Your task to perform on an android device: show emergency info Image 0: 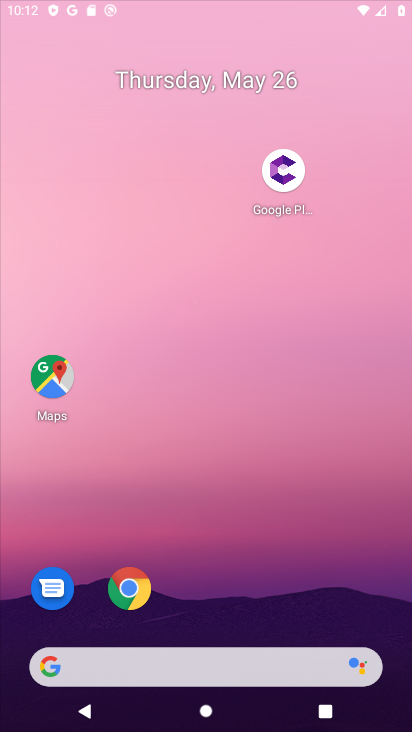
Step 0: drag from (263, 252) to (230, 28)
Your task to perform on an android device: show emergency info Image 1: 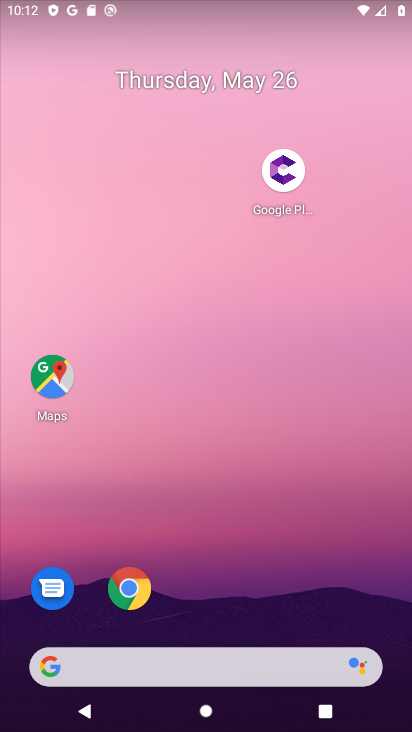
Step 1: drag from (245, 652) to (226, 6)
Your task to perform on an android device: show emergency info Image 2: 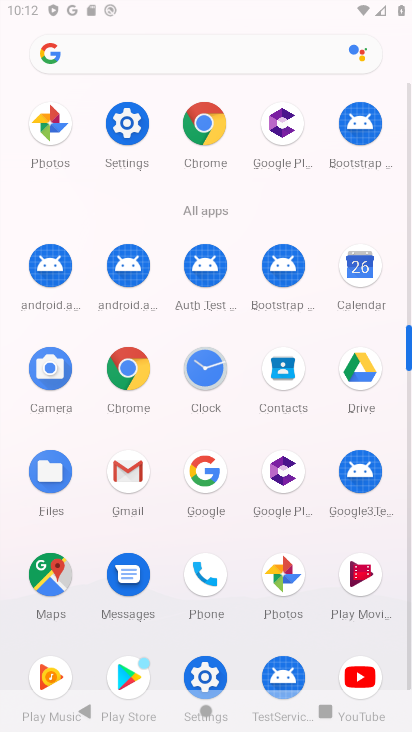
Step 2: drag from (265, 573) to (179, 3)
Your task to perform on an android device: show emergency info Image 3: 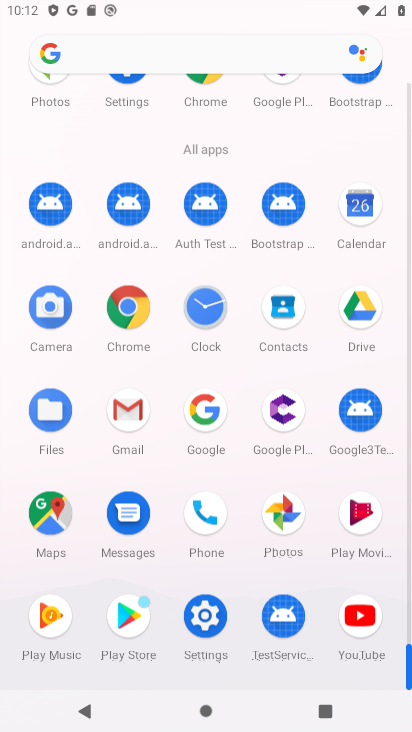
Step 3: drag from (185, 309) to (185, 45)
Your task to perform on an android device: show emergency info Image 4: 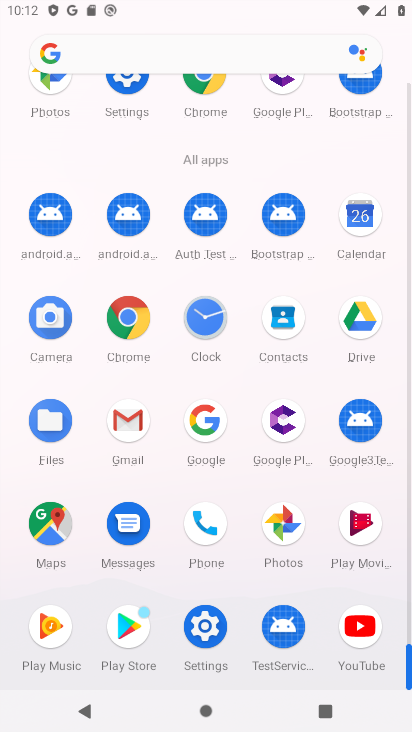
Step 4: click (211, 618)
Your task to perform on an android device: show emergency info Image 5: 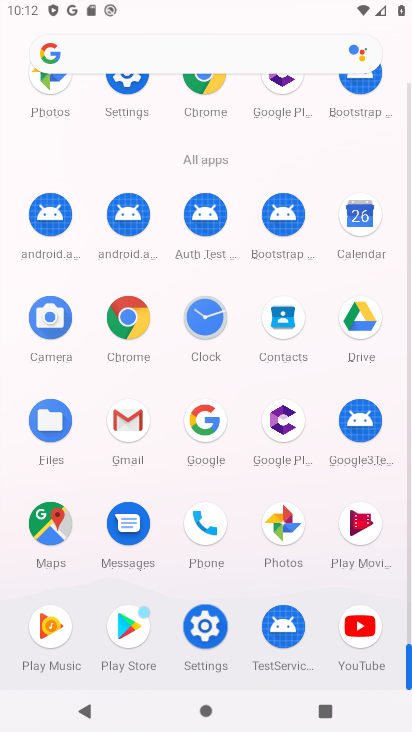
Step 5: click (211, 618)
Your task to perform on an android device: show emergency info Image 6: 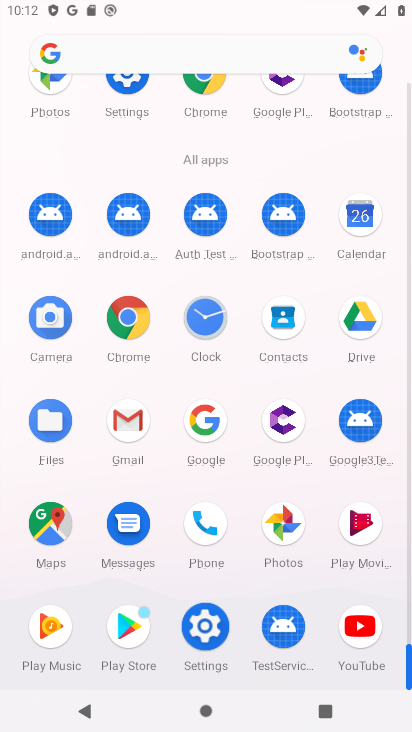
Step 6: click (211, 618)
Your task to perform on an android device: show emergency info Image 7: 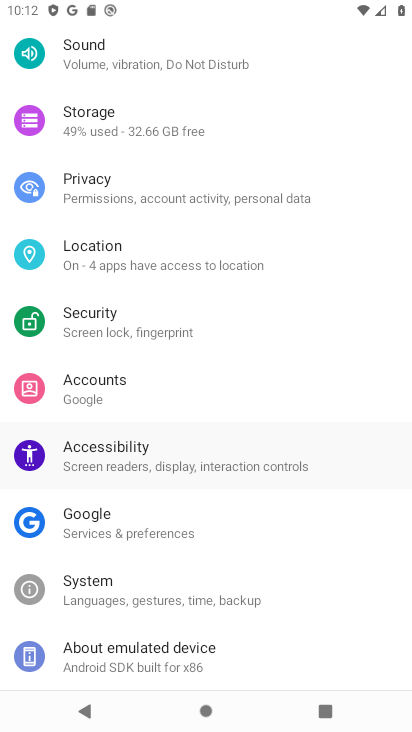
Step 7: click (211, 618)
Your task to perform on an android device: show emergency info Image 8: 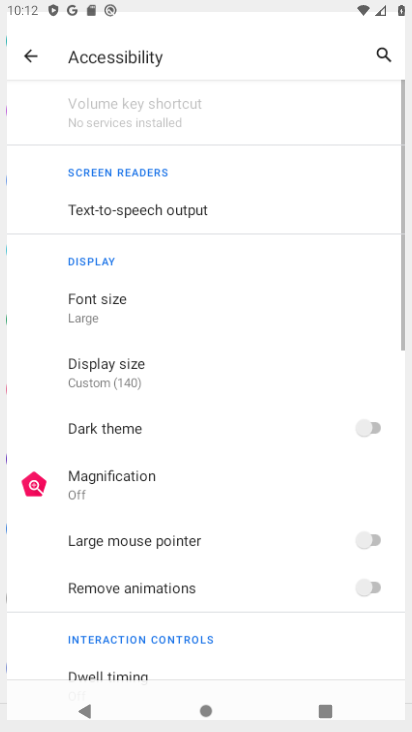
Step 8: click (211, 618)
Your task to perform on an android device: show emergency info Image 9: 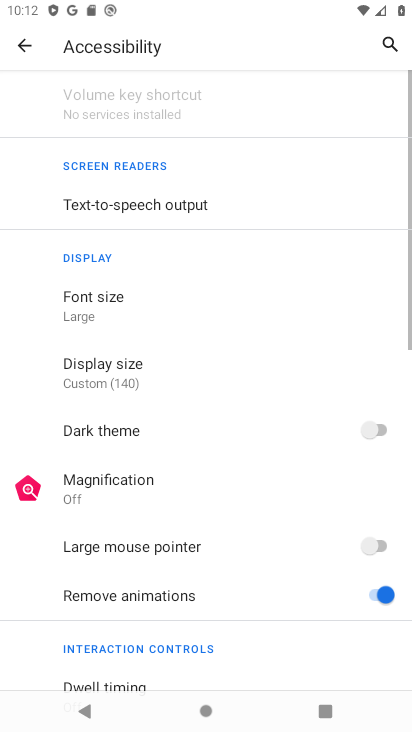
Step 9: click (23, 40)
Your task to perform on an android device: show emergency info Image 10: 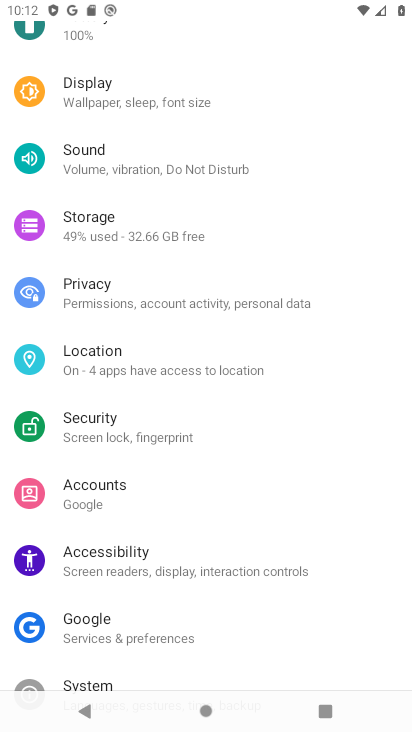
Step 10: drag from (146, 460) to (127, 334)
Your task to perform on an android device: show emergency info Image 11: 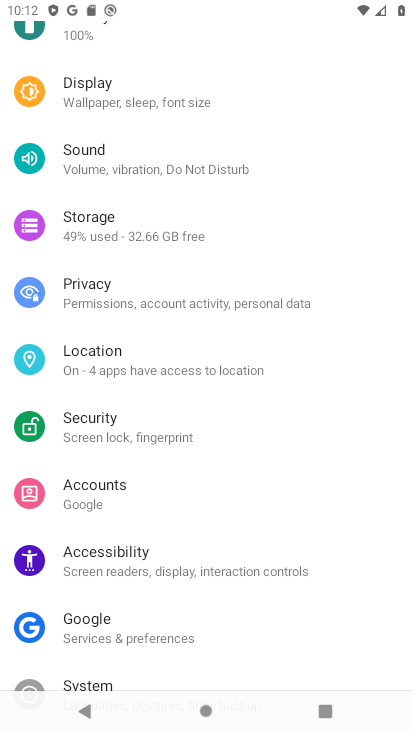
Step 11: drag from (160, 416) to (163, 246)
Your task to perform on an android device: show emergency info Image 12: 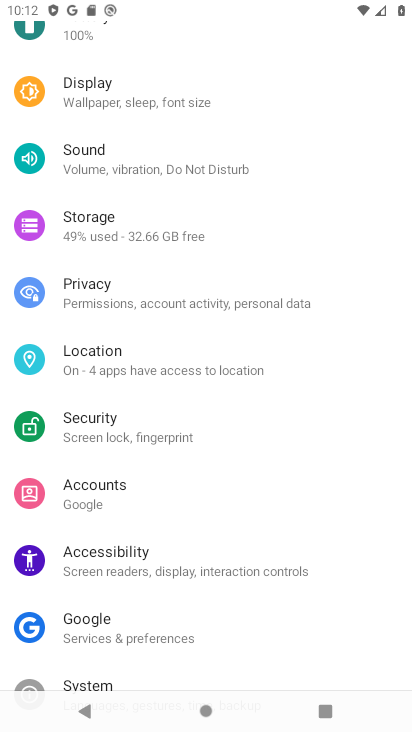
Step 12: drag from (146, 438) to (144, 59)
Your task to perform on an android device: show emergency info Image 13: 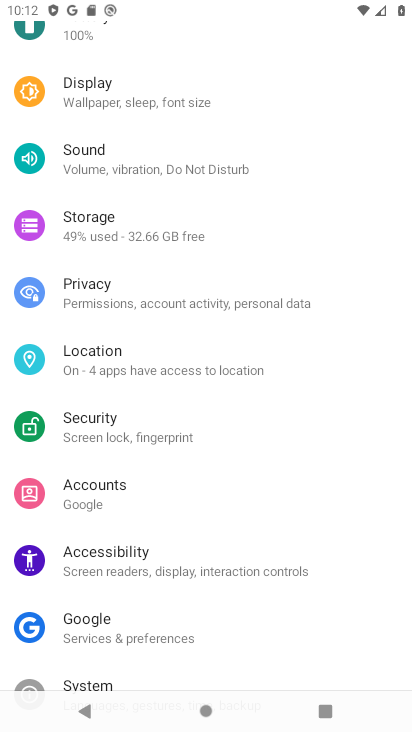
Step 13: drag from (157, 196) to (167, 77)
Your task to perform on an android device: show emergency info Image 14: 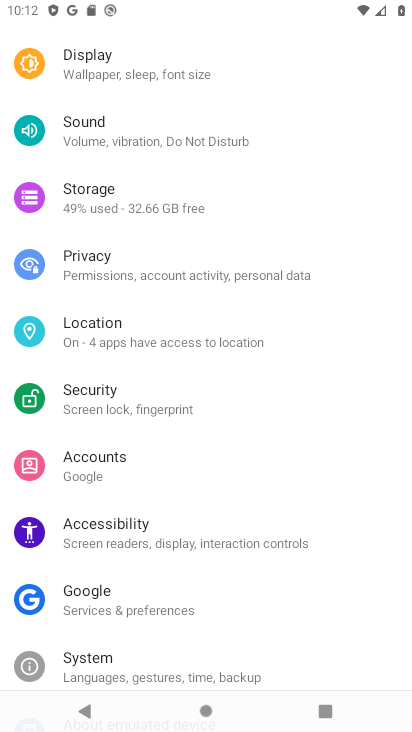
Step 14: drag from (125, 451) to (124, 159)
Your task to perform on an android device: show emergency info Image 15: 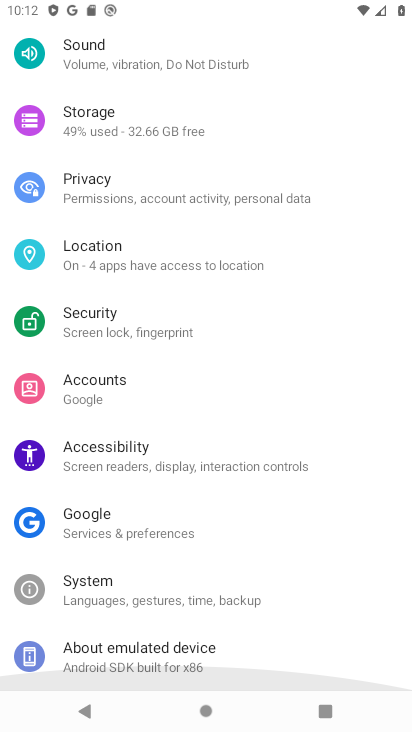
Step 15: drag from (164, 395) to (181, 256)
Your task to perform on an android device: show emergency info Image 16: 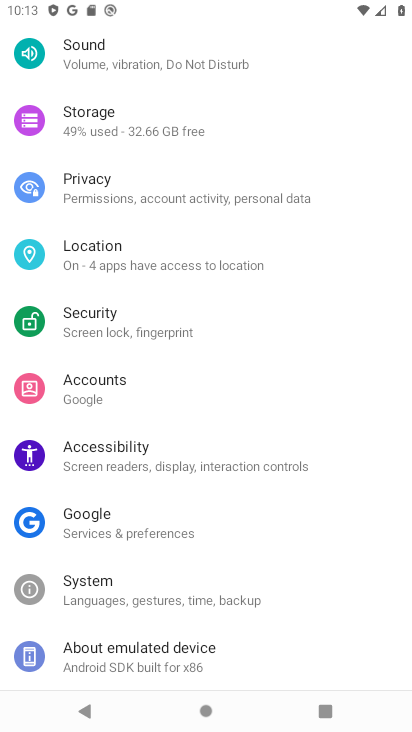
Step 16: click (130, 648)
Your task to perform on an android device: show emergency info Image 17: 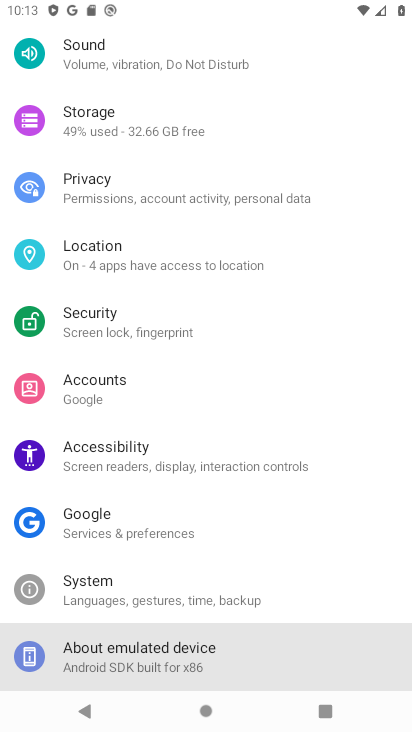
Step 17: click (130, 649)
Your task to perform on an android device: show emergency info Image 18: 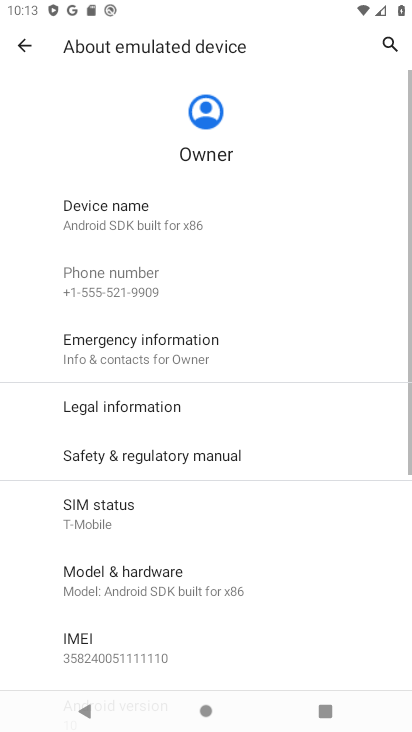
Step 18: click (130, 650)
Your task to perform on an android device: show emergency info Image 19: 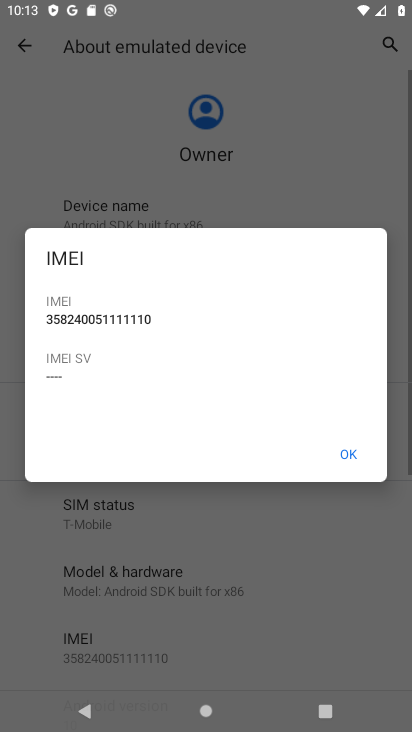
Step 19: click (358, 443)
Your task to perform on an android device: show emergency info Image 20: 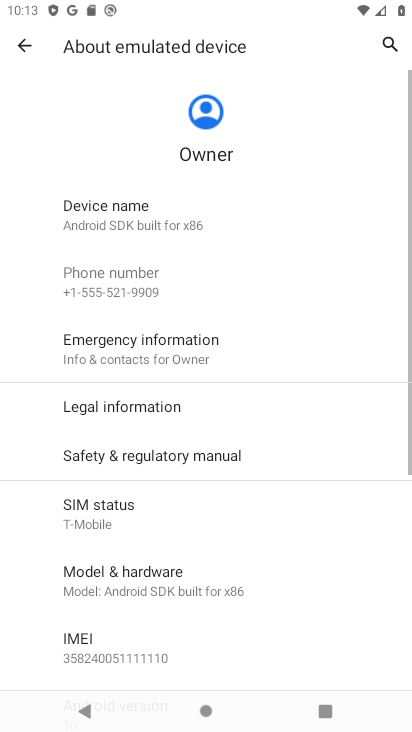
Step 20: drag from (156, 443) to (157, 265)
Your task to perform on an android device: show emergency info Image 21: 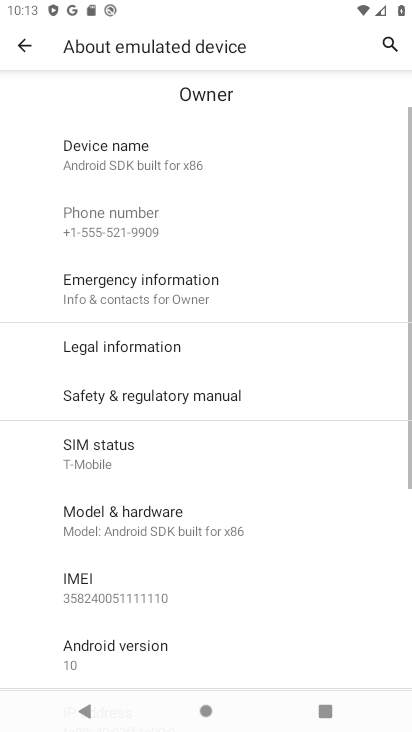
Step 21: drag from (164, 379) to (164, 150)
Your task to perform on an android device: show emergency info Image 22: 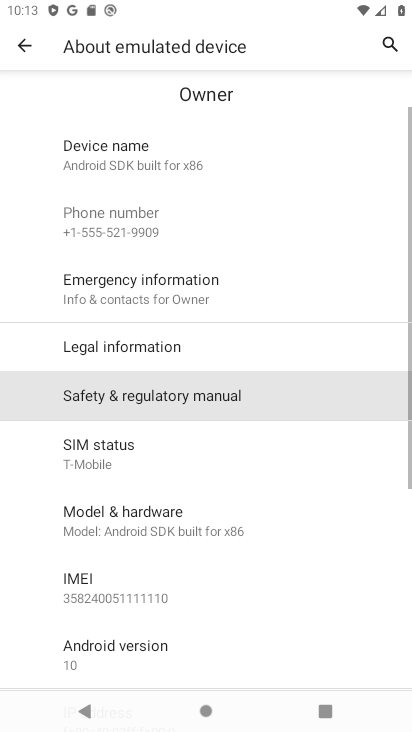
Step 22: drag from (77, 583) to (161, 225)
Your task to perform on an android device: show emergency info Image 23: 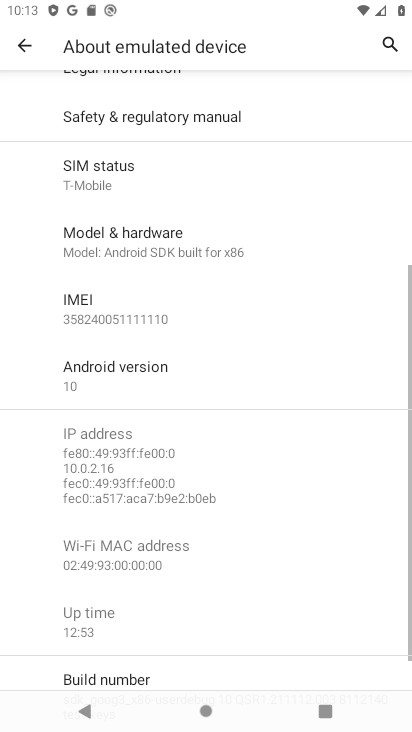
Step 23: drag from (121, 315) to (117, 182)
Your task to perform on an android device: show emergency info Image 24: 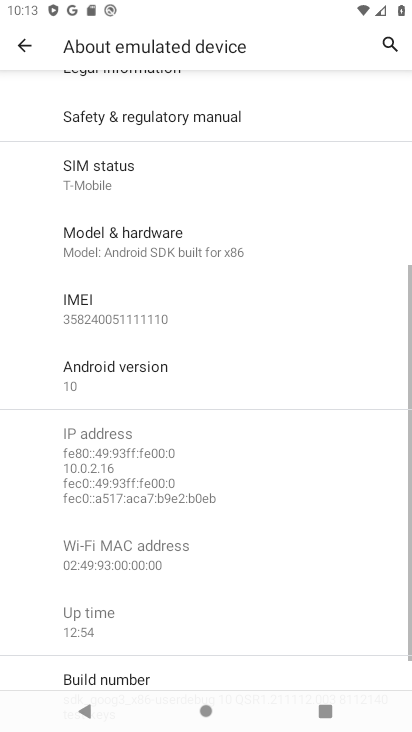
Step 24: click (125, 232)
Your task to perform on an android device: show emergency info Image 25: 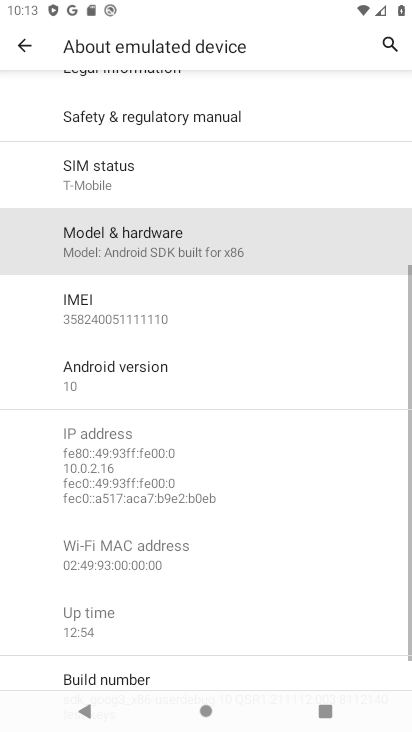
Step 25: task complete